Your task to perform on an android device: snooze an email in the gmail app Image 0: 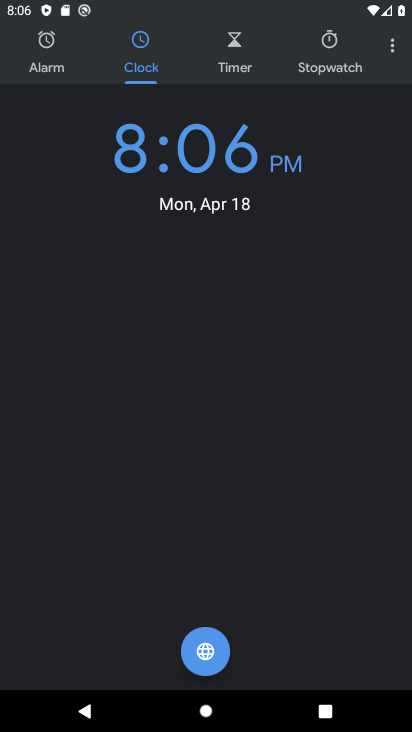
Step 0: press home button
Your task to perform on an android device: snooze an email in the gmail app Image 1: 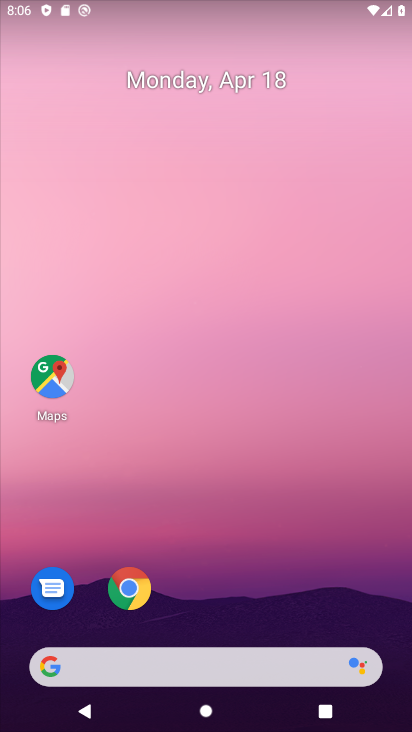
Step 1: drag from (275, 572) to (311, 72)
Your task to perform on an android device: snooze an email in the gmail app Image 2: 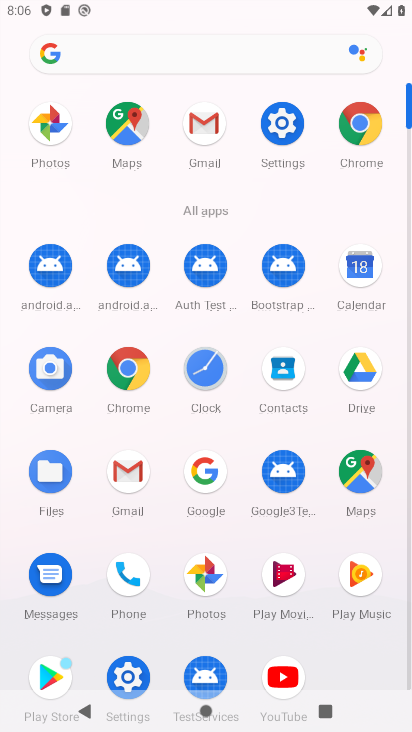
Step 2: click (207, 116)
Your task to perform on an android device: snooze an email in the gmail app Image 3: 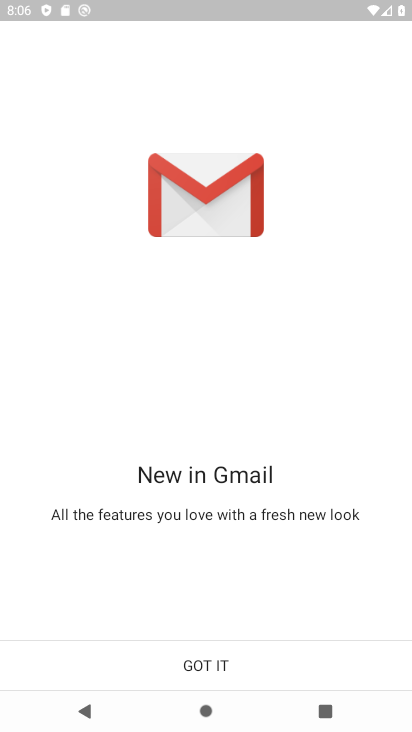
Step 3: click (209, 669)
Your task to perform on an android device: snooze an email in the gmail app Image 4: 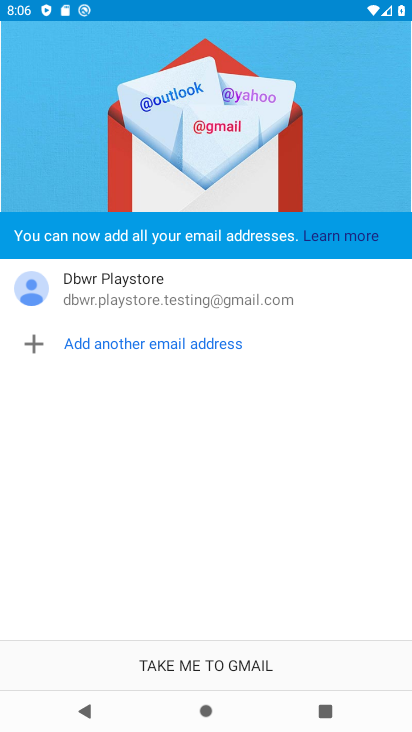
Step 4: click (212, 667)
Your task to perform on an android device: snooze an email in the gmail app Image 5: 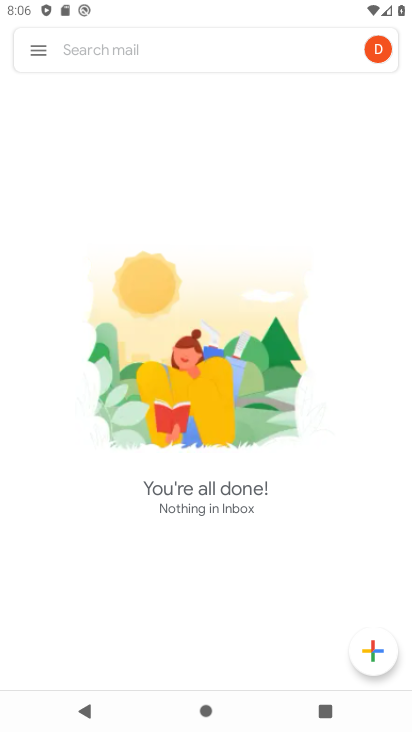
Step 5: click (39, 51)
Your task to perform on an android device: snooze an email in the gmail app Image 6: 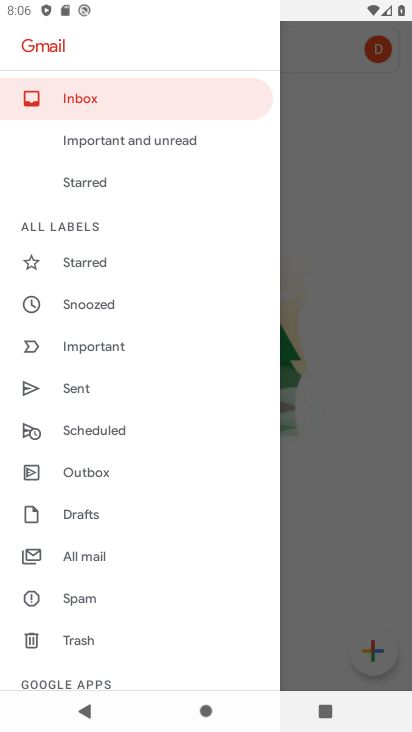
Step 6: click (90, 552)
Your task to perform on an android device: snooze an email in the gmail app Image 7: 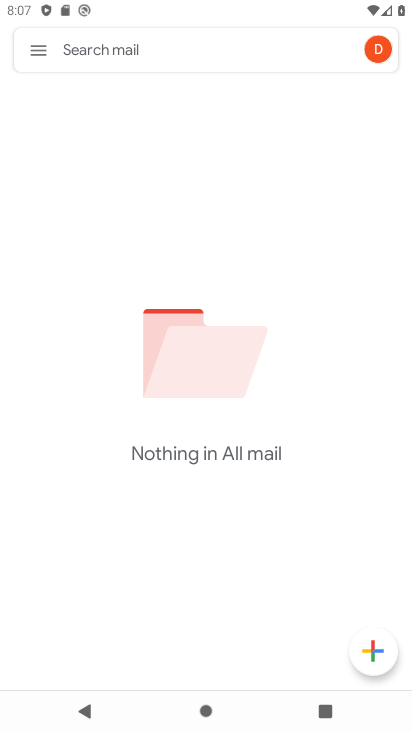
Step 7: task complete